Your task to perform on an android device: Search for seafood restaurants on Google Maps Image 0: 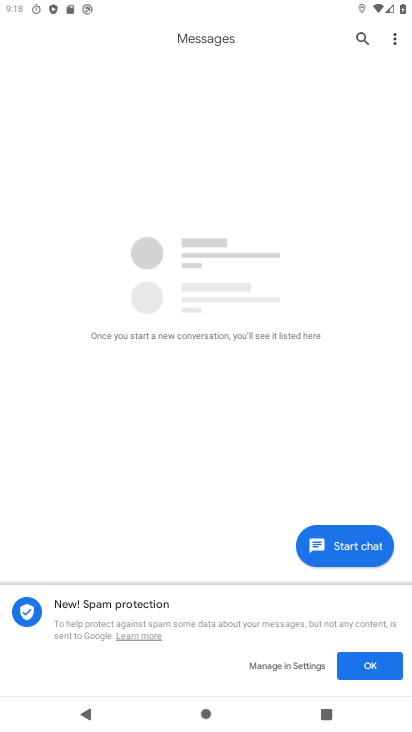
Step 0: press home button
Your task to perform on an android device: Search for seafood restaurants on Google Maps Image 1: 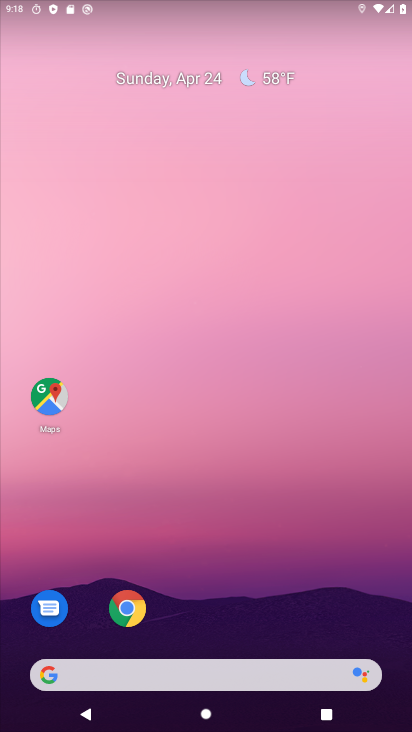
Step 1: drag from (358, 599) to (355, 122)
Your task to perform on an android device: Search for seafood restaurants on Google Maps Image 2: 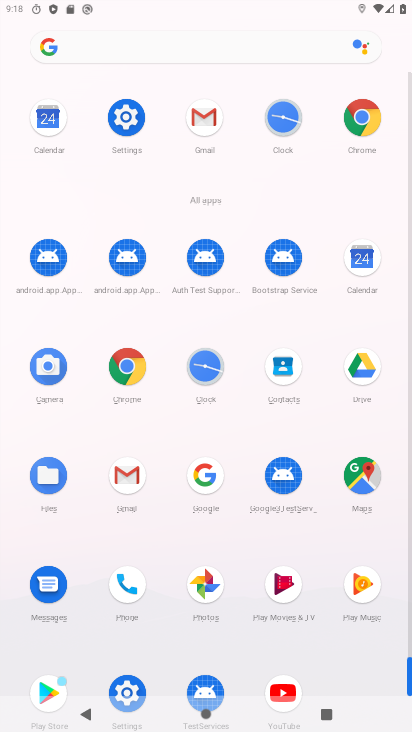
Step 2: click (359, 472)
Your task to perform on an android device: Search for seafood restaurants on Google Maps Image 3: 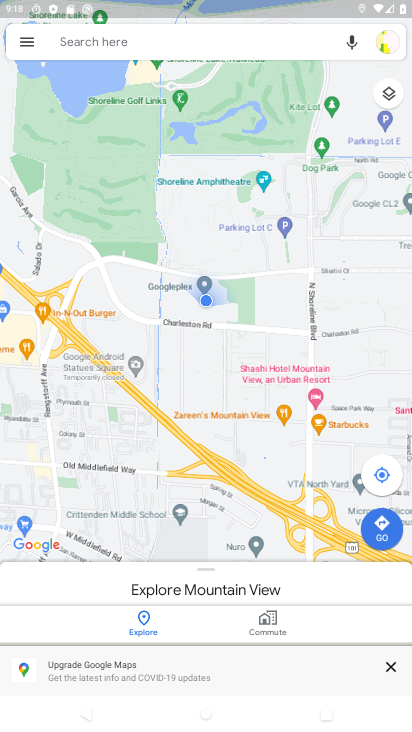
Step 3: click (197, 32)
Your task to perform on an android device: Search for seafood restaurants on Google Maps Image 4: 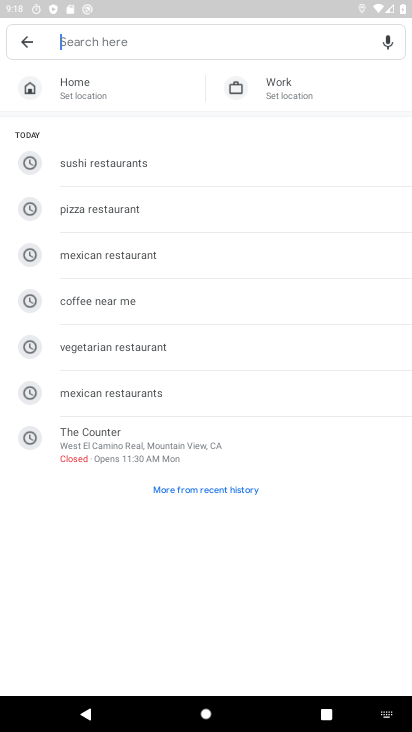
Step 4: type "seafood restaurants"
Your task to perform on an android device: Search for seafood restaurants on Google Maps Image 5: 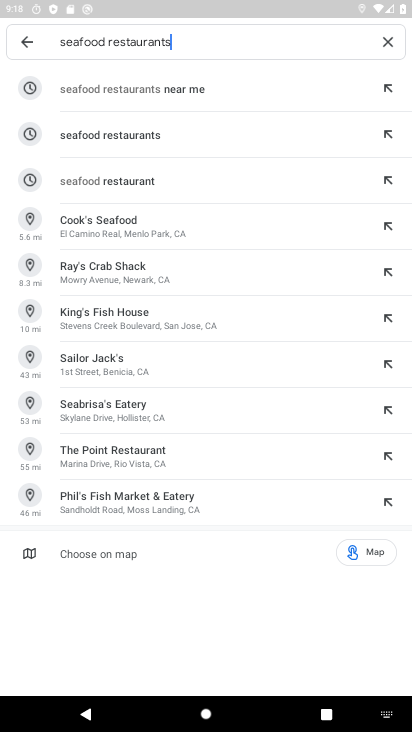
Step 5: click (198, 97)
Your task to perform on an android device: Search for seafood restaurants on Google Maps Image 6: 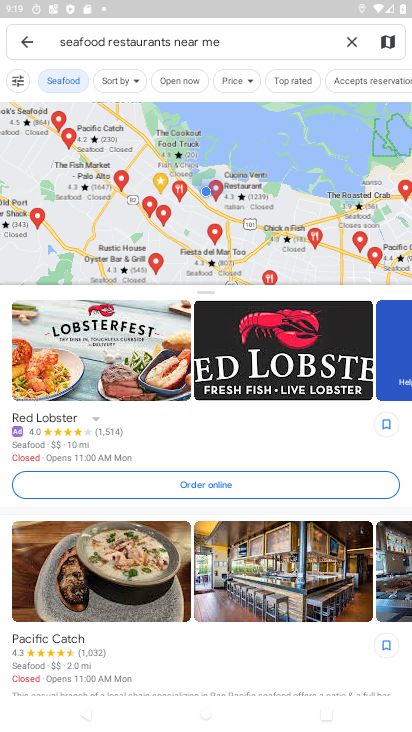
Step 6: task complete